Your task to perform on an android device: turn smart compose on in the gmail app Image 0: 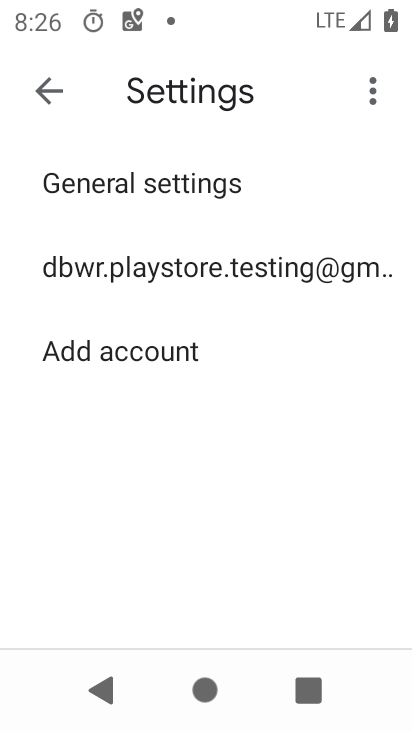
Step 0: drag from (212, 537) to (218, 315)
Your task to perform on an android device: turn smart compose on in the gmail app Image 1: 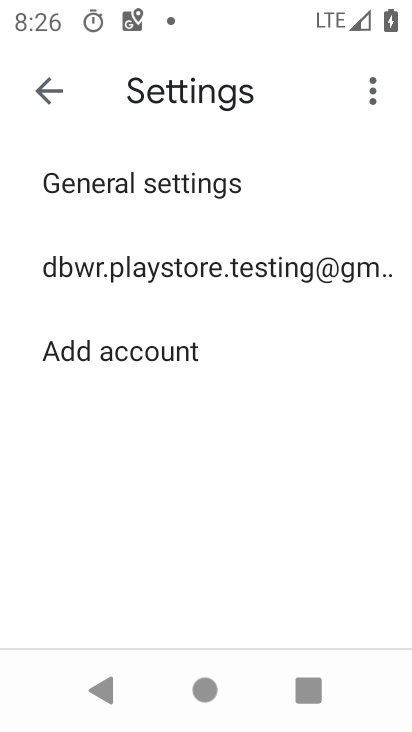
Step 1: drag from (246, 492) to (252, 254)
Your task to perform on an android device: turn smart compose on in the gmail app Image 2: 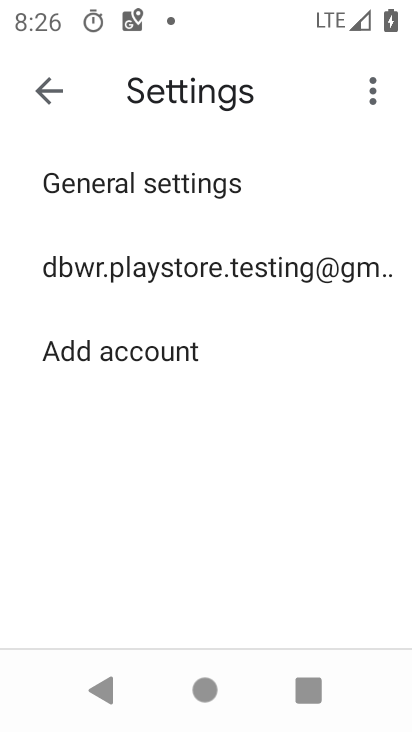
Step 2: press home button
Your task to perform on an android device: turn smart compose on in the gmail app Image 3: 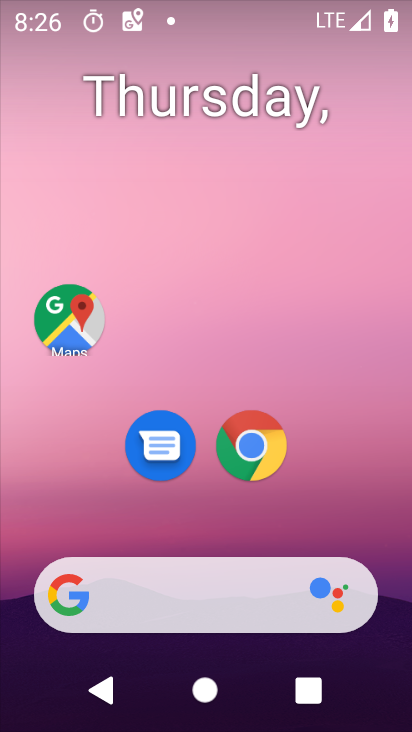
Step 3: drag from (178, 535) to (182, 416)
Your task to perform on an android device: turn smart compose on in the gmail app Image 4: 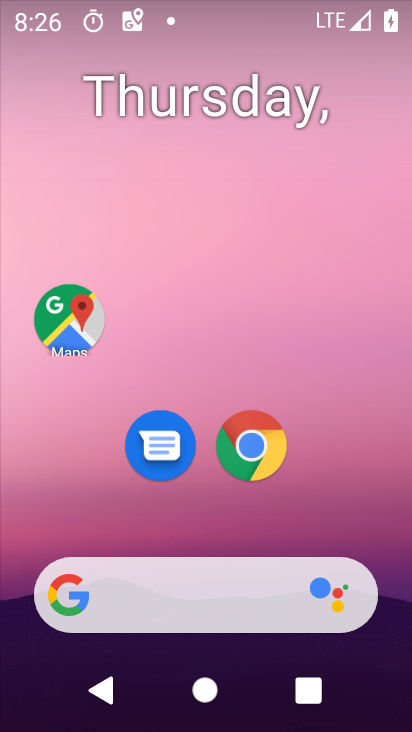
Step 4: drag from (213, 529) to (207, 161)
Your task to perform on an android device: turn smart compose on in the gmail app Image 5: 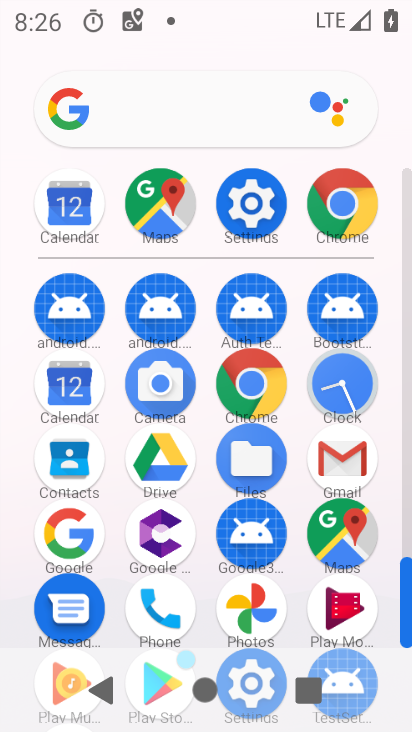
Step 5: click (338, 454)
Your task to perform on an android device: turn smart compose on in the gmail app Image 6: 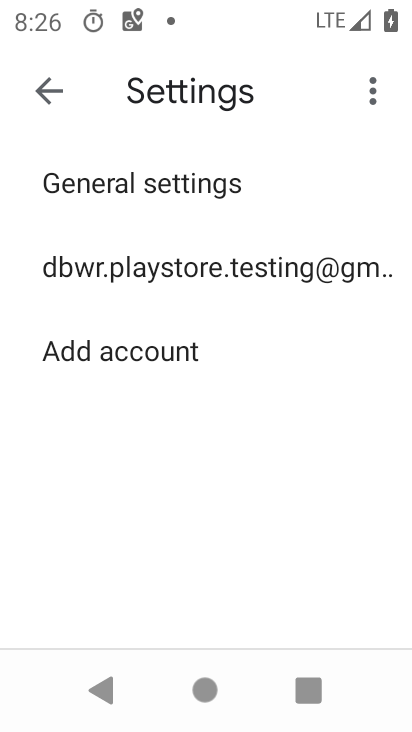
Step 6: click (205, 269)
Your task to perform on an android device: turn smart compose on in the gmail app Image 7: 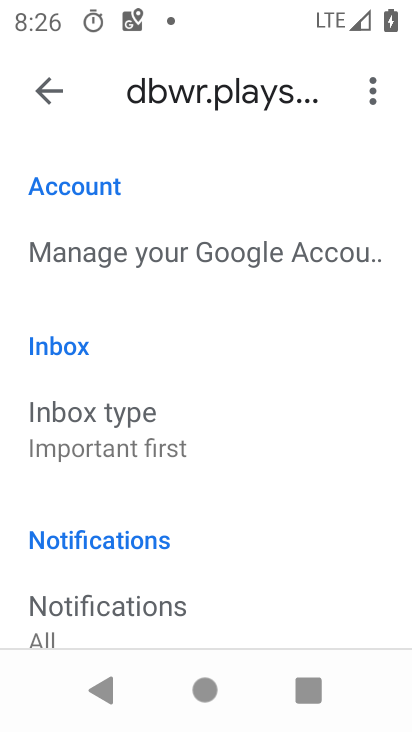
Step 7: task complete